Your task to perform on an android device: check google app version Image 0: 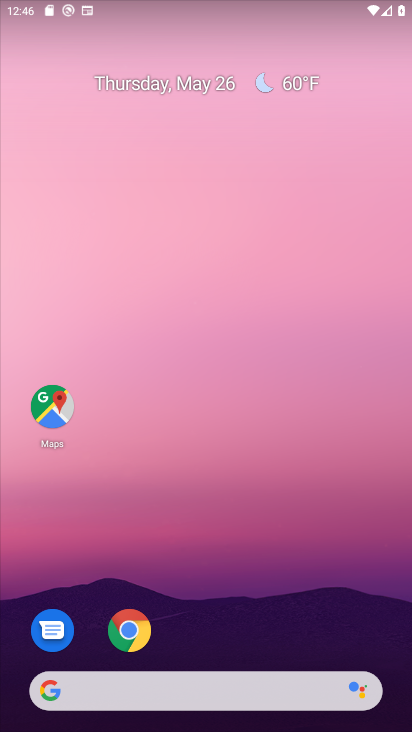
Step 0: drag from (280, 532) to (291, 130)
Your task to perform on an android device: check google app version Image 1: 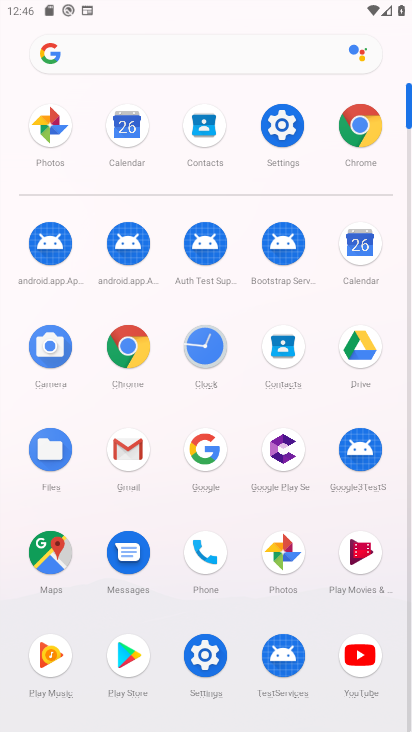
Step 1: click (291, 128)
Your task to perform on an android device: check google app version Image 2: 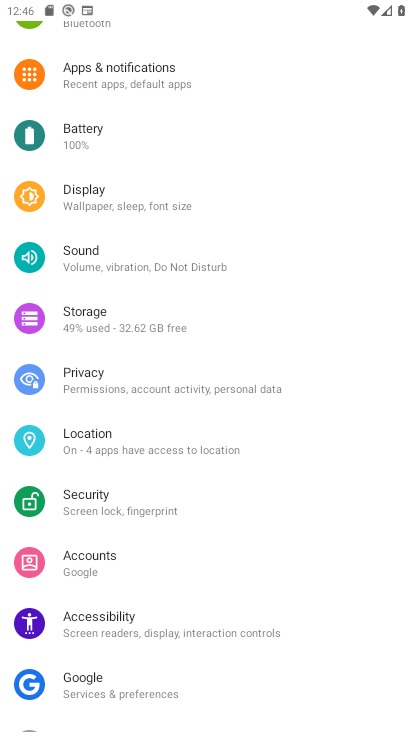
Step 2: drag from (187, 610) to (255, 89)
Your task to perform on an android device: check google app version Image 3: 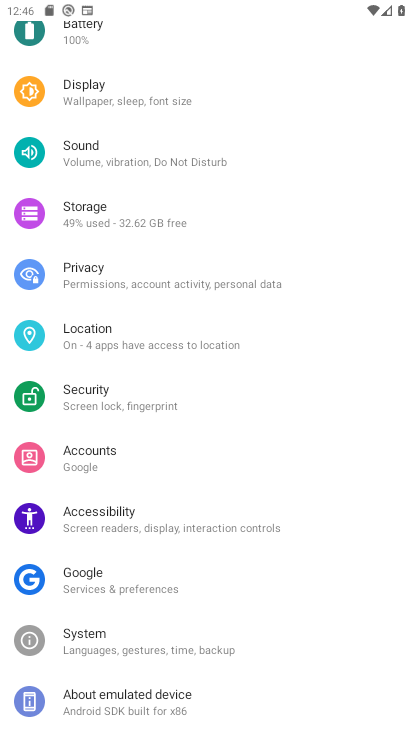
Step 3: click (175, 704)
Your task to perform on an android device: check google app version Image 4: 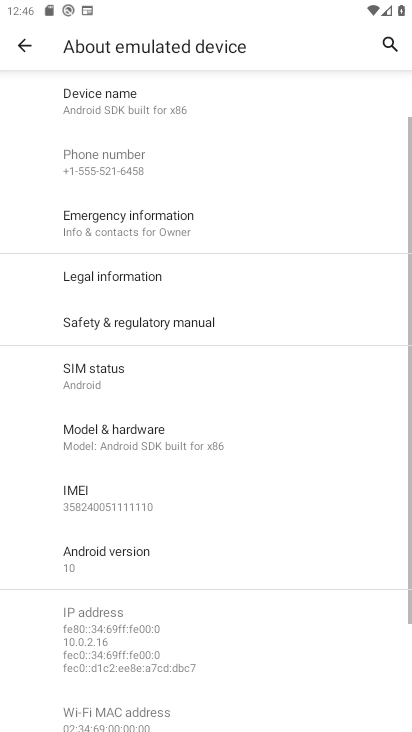
Step 4: click (79, 567)
Your task to perform on an android device: check google app version Image 5: 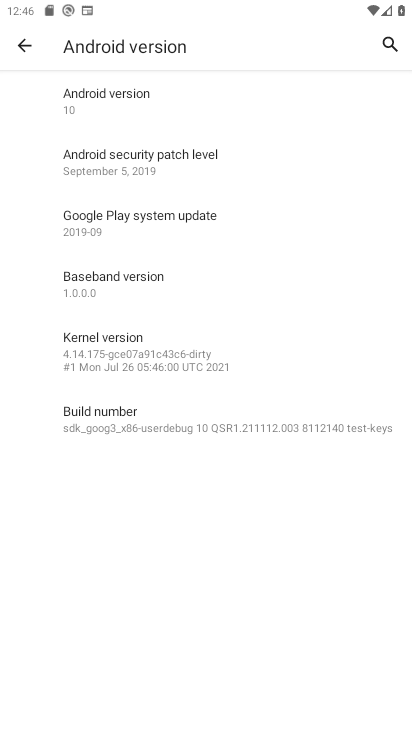
Step 5: click (80, 105)
Your task to perform on an android device: check google app version Image 6: 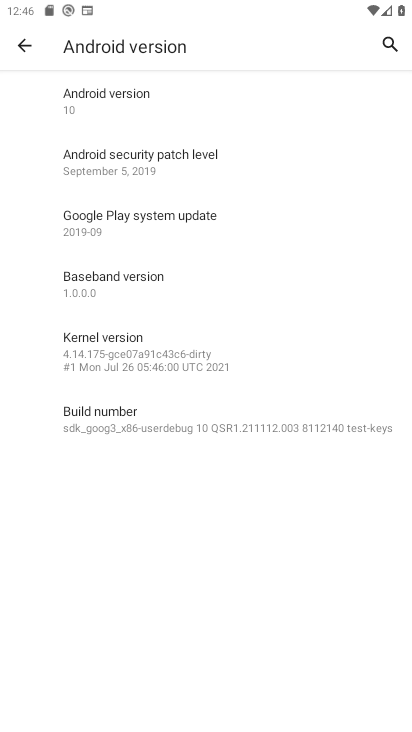
Step 6: task complete